Your task to perform on an android device: check storage Image 0: 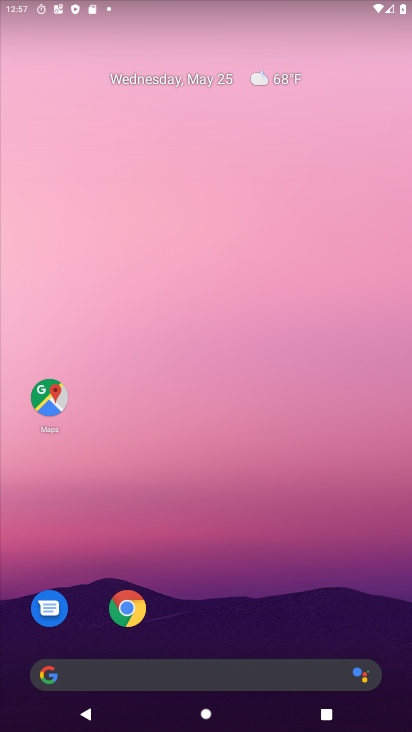
Step 0: drag from (234, 615) to (137, 138)
Your task to perform on an android device: check storage Image 1: 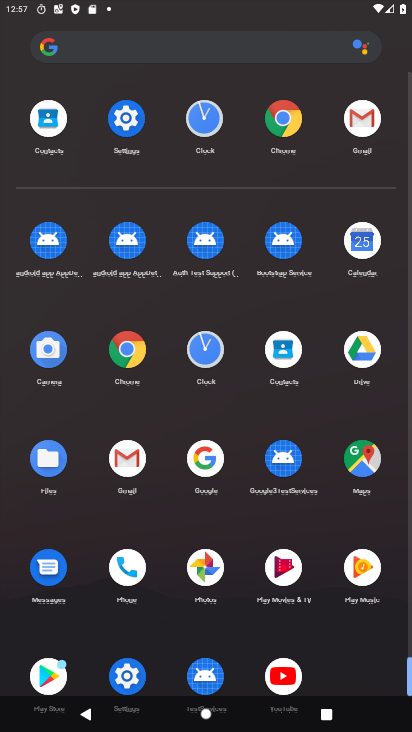
Step 1: click (141, 676)
Your task to perform on an android device: check storage Image 2: 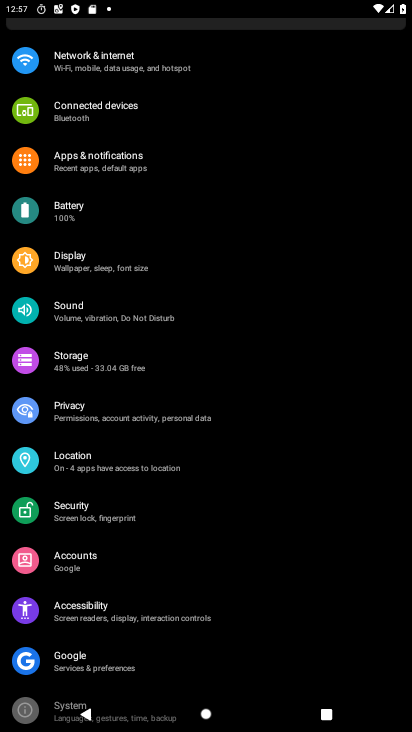
Step 2: click (106, 361)
Your task to perform on an android device: check storage Image 3: 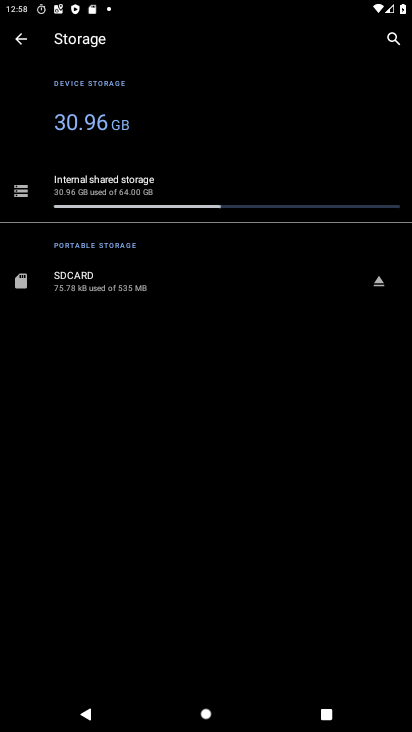
Step 3: task complete